Your task to perform on an android device: toggle javascript in the chrome app Image 0: 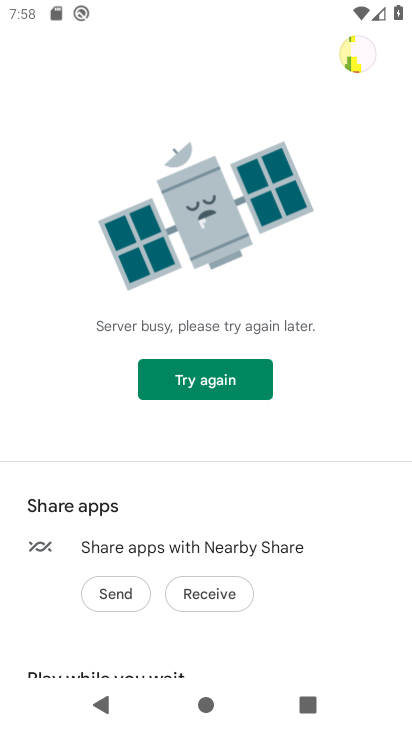
Step 0: drag from (24, 562) to (272, 109)
Your task to perform on an android device: toggle javascript in the chrome app Image 1: 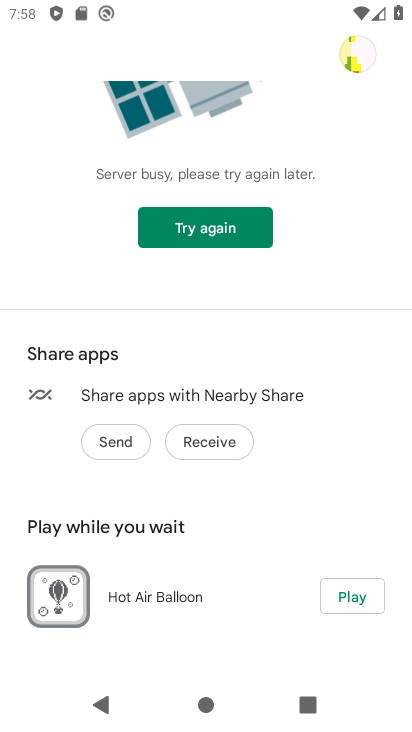
Step 1: press back button
Your task to perform on an android device: toggle javascript in the chrome app Image 2: 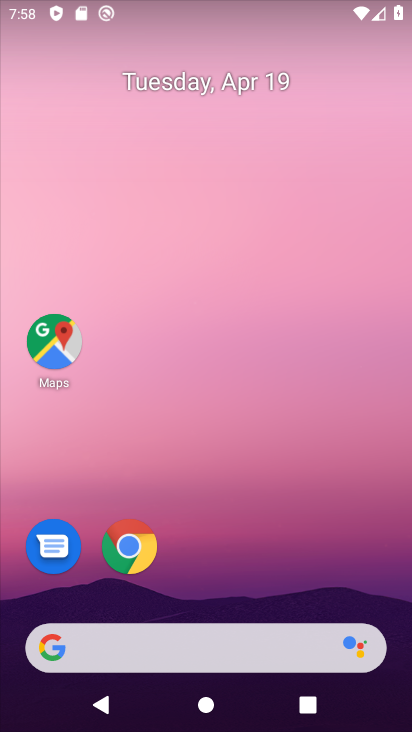
Step 2: click (144, 543)
Your task to perform on an android device: toggle javascript in the chrome app Image 3: 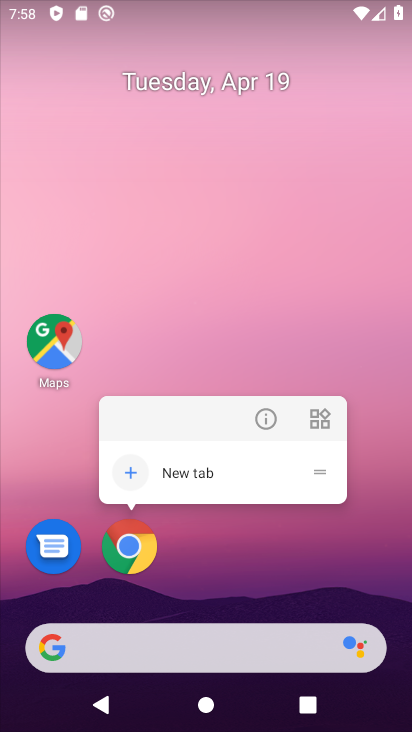
Step 3: click (158, 221)
Your task to perform on an android device: toggle javascript in the chrome app Image 4: 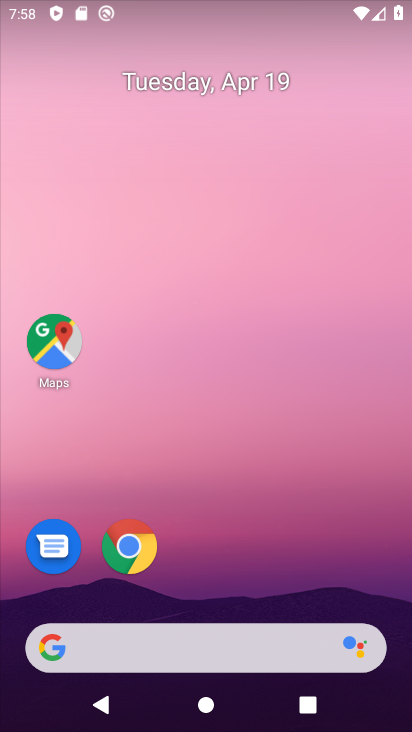
Step 4: click (133, 538)
Your task to perform on an android device: toggle javascript in the chrome app Image 5: 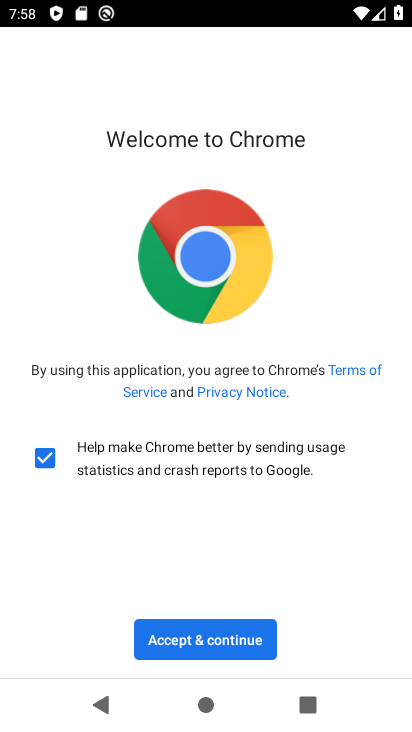
Step 5: click (200, 649)
Your task to perform on an android device: toggle javascript in the chrome app Image 6: 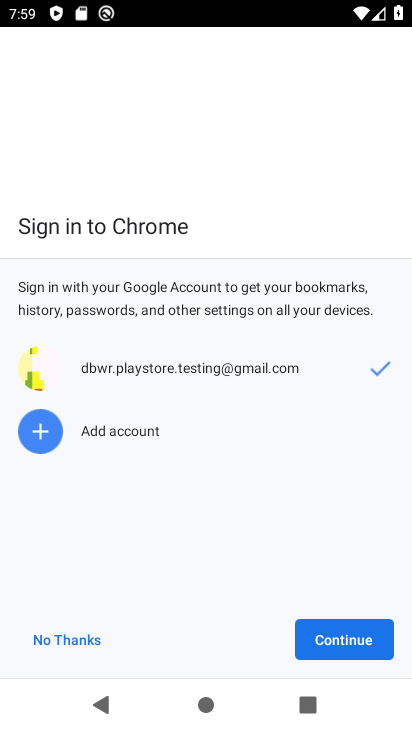
Step 6: click (338, 631)
Your task to perform on an android device: toggle javascript in the chrome app Image 7: 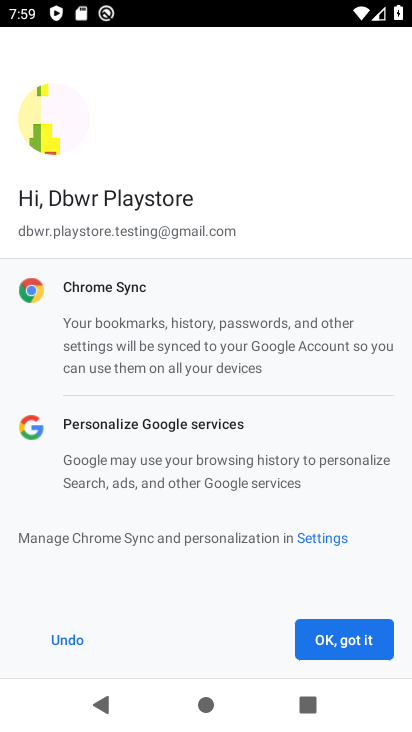
Step 7: click (338, 631)
Your task to perform on an android device: toggle javascript in the chrome app Image 8: 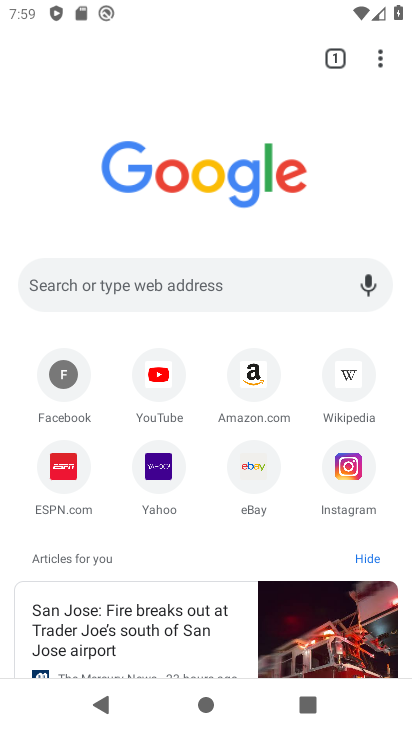
Step 8: click (380, 59)
Your task to perform on an android device: toggle javascript in the chrome app Image 9: 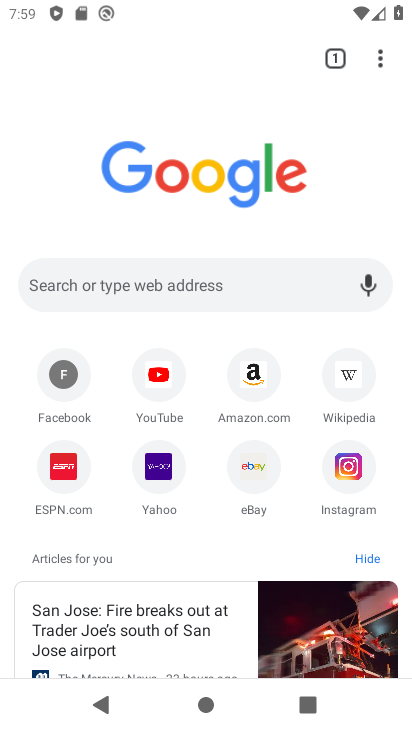
Step 9: click (380, 59)
Your task to perform on an android device: toggle javascript in the chrome app Image 10: 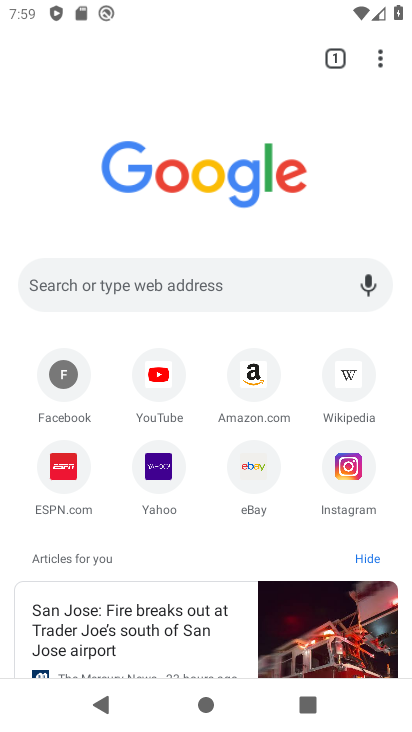
Step 10: click (380, 59)
Your task to perform on an android device: toggle javascript in the chrome app Image 11: 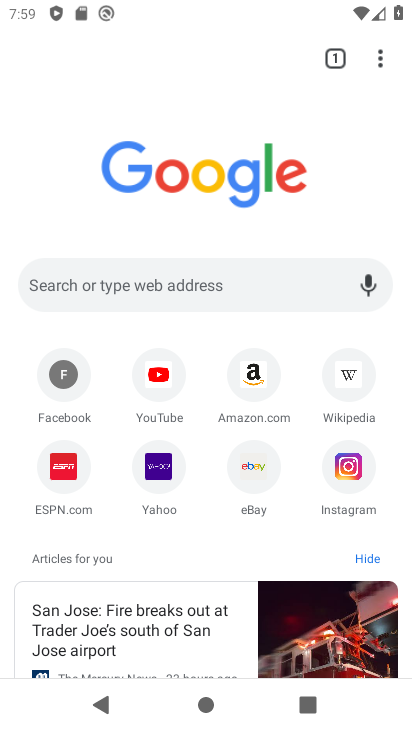
Step 11: click (380, 59)
Your task to perform on an android device: toggle javascript in the chrome app Image 12: 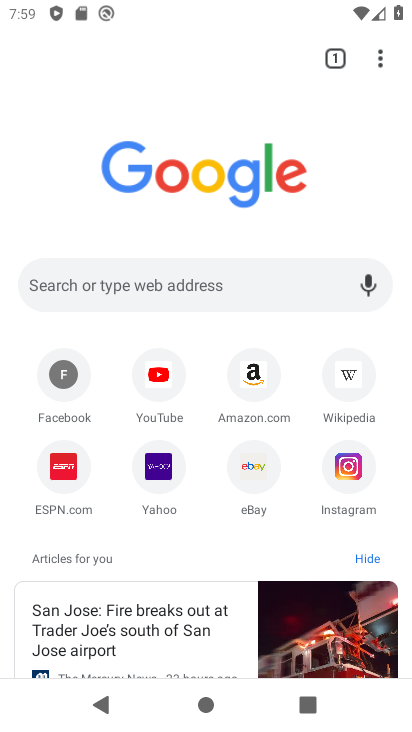
Step 12: click (380, 59)
Your task to perform on an android device: toggle javascript in the chrome app Image 13: 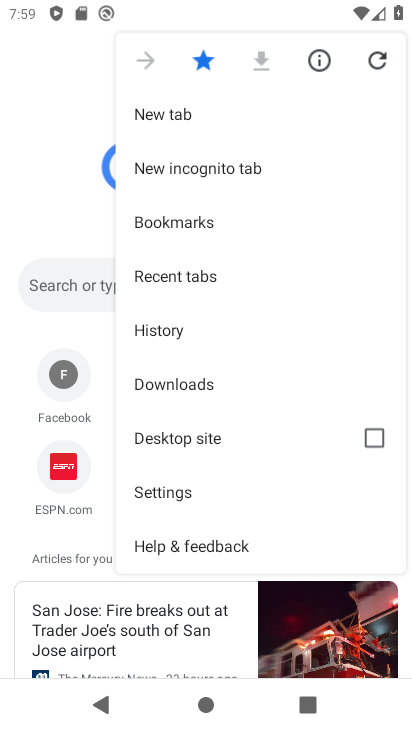
Step 13: click (186, 494)
Your task to perform on an android device: toggle javascript in the chrome app Image 14: 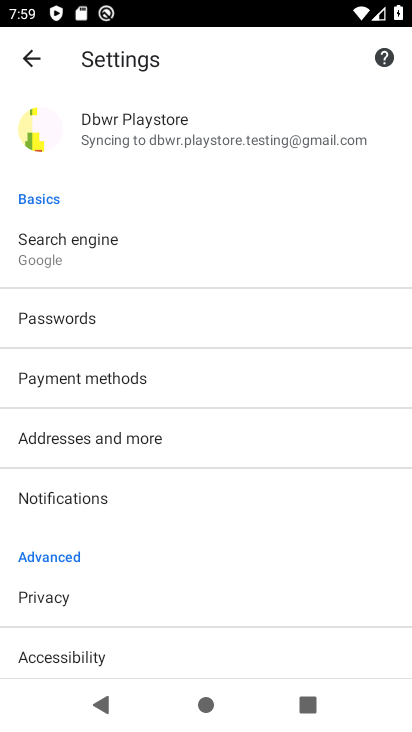
Step 14: drag from (160, 643) to (224, 273)
Your task to perform on an android device: toggle javascript in the chrome app Image 15: 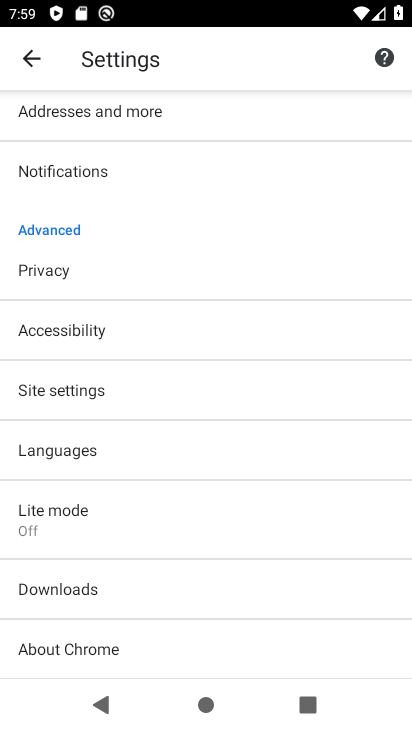
Step 15: click (175, 384)
Your task to perform on an android device: toggle javascript in the chrome app Image 16: 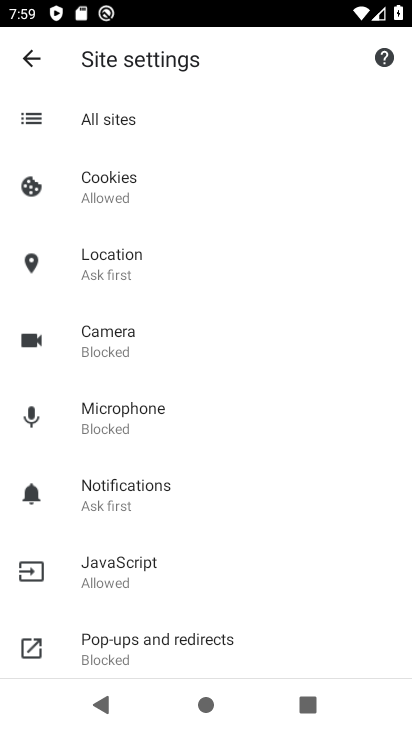
Step 16: click (131, 562)
Your task to perform on an android device: toggle javascript in the chrome app Image 17: 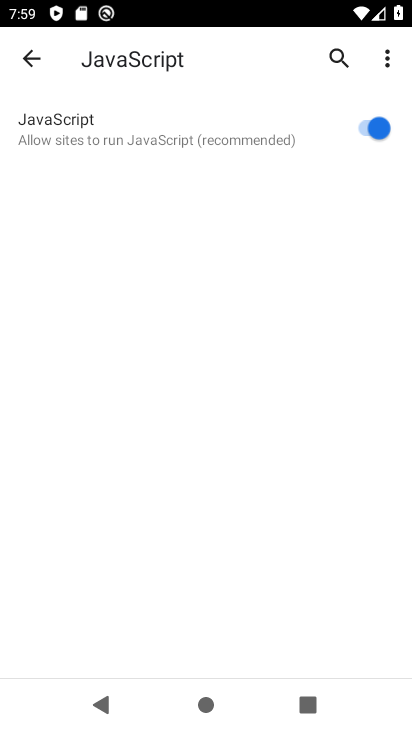
Step 17: click (379, 119)
Your task to perform on an android device: toggle javascript in the chrome app Image 18: 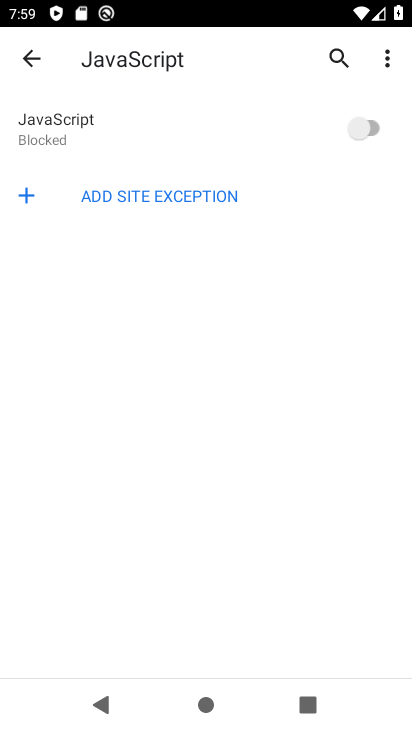
Step 18: task complete